Your task to perform on an android device: Open settings Image 0: 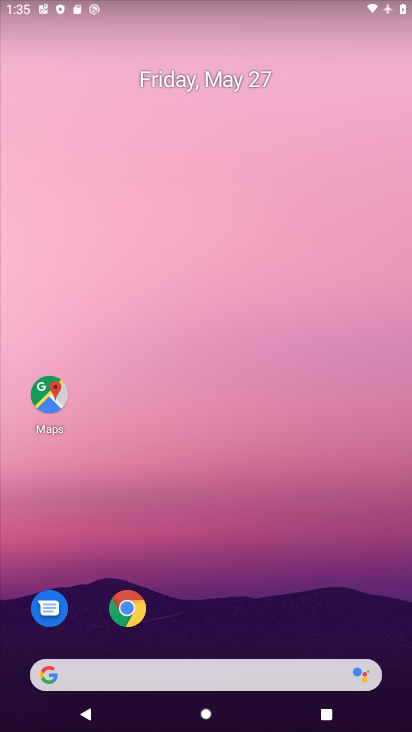
Step 0: press home button
Your task to perform on an android device: Open settings Image 1: 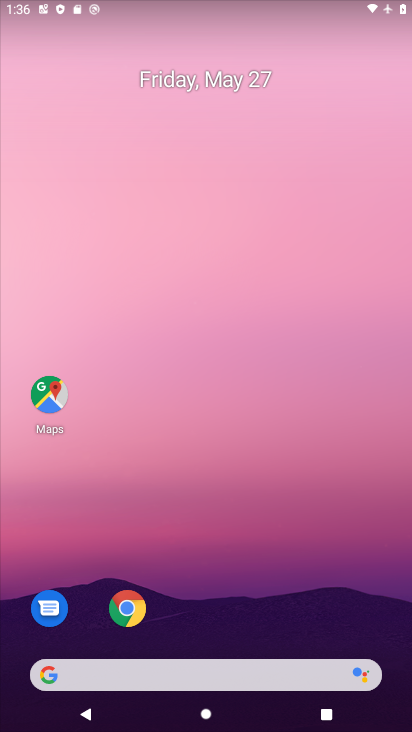
Step 1: drag from (185, 673) to (341, 98)
Your task to perform on an android device: Open settings Image 2: 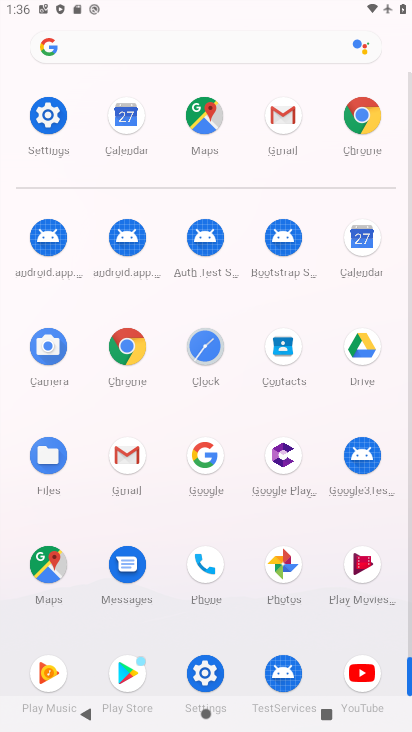
Step 2: click (50, 122)
Your task to perform on an android device: Open settings Image 3: 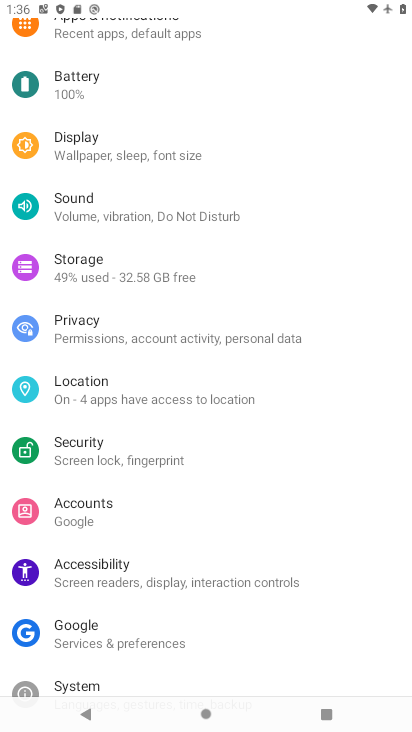
Step 3: task complete